Your task to perform on an android device: Open the Play Movies app and select the watchlist tab. Image 0: 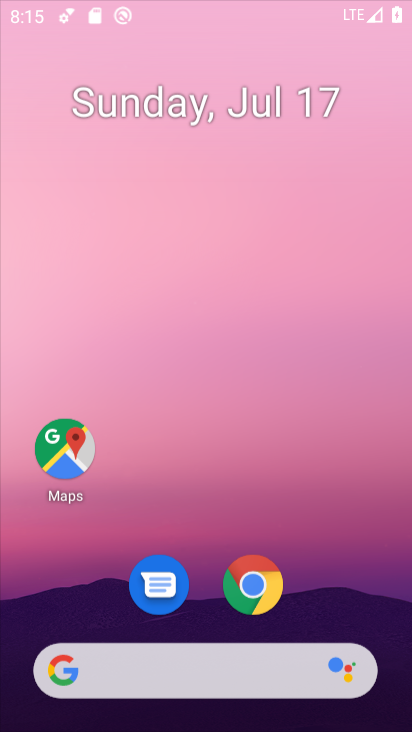
Step 0: click (250, 590)
Your task to perform on an android device: Open the Play Movies app and select the watchlist tab. Image 1: 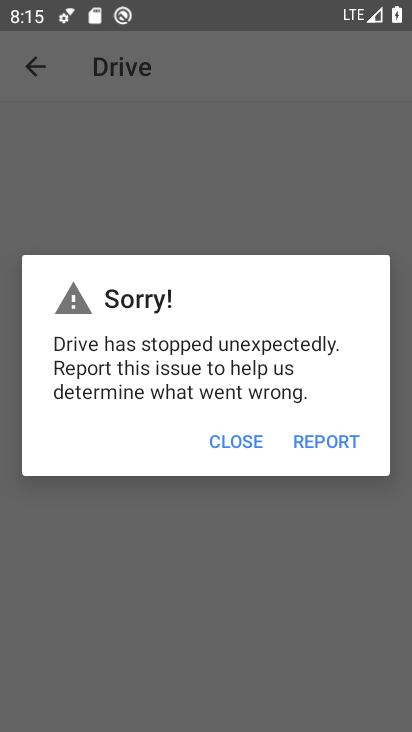
Step 1: press home button
Your task to perform on an android device: Open the Play Movies app and select the watchlist tab. Image 2: 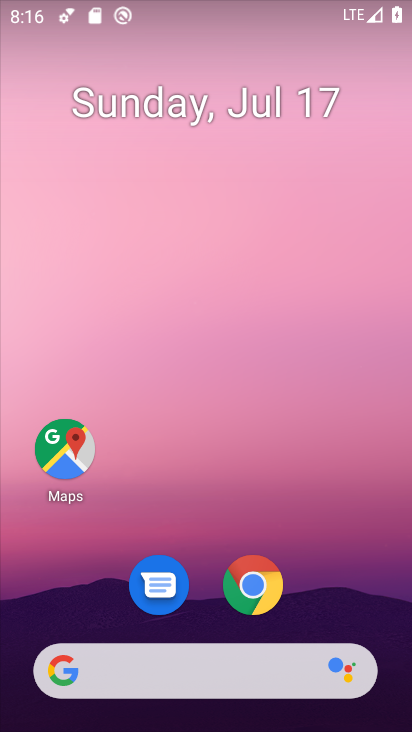
Step 2: drag from (328, 605) to (308, 31)
Your task to perform on an android device: Open the Play Movies app and select the watchlist tab. Image 3: 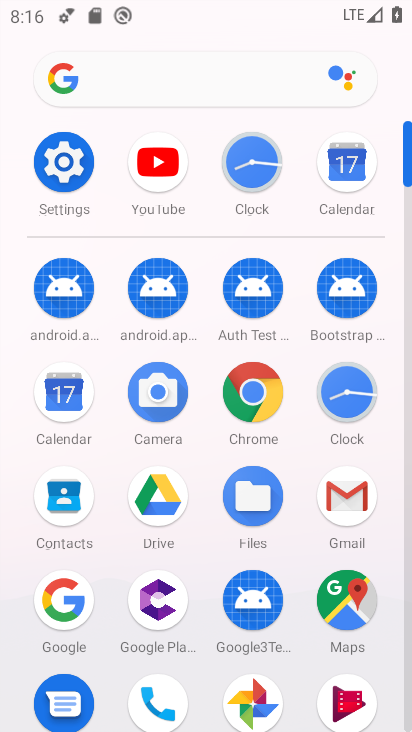
Step 3: click (349, 690)
Your task to perform on an android device: Open the Play Movies app and select the watchlist tab. Image 4: 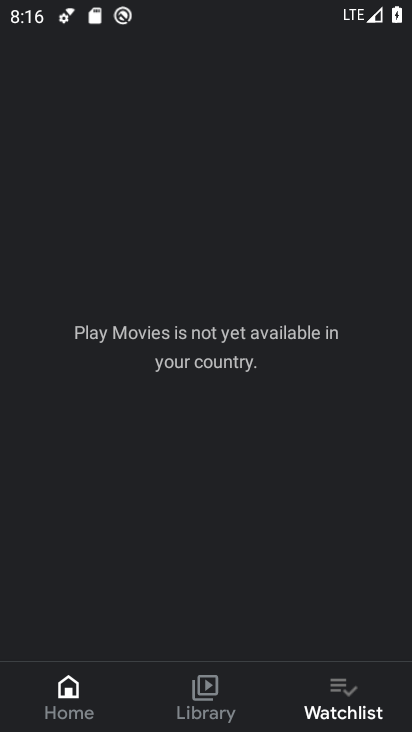
Step 4: click (330, 690)
Your task to perform on an android device: Open the Play Movies app and select the watchlist tab. Image 5: 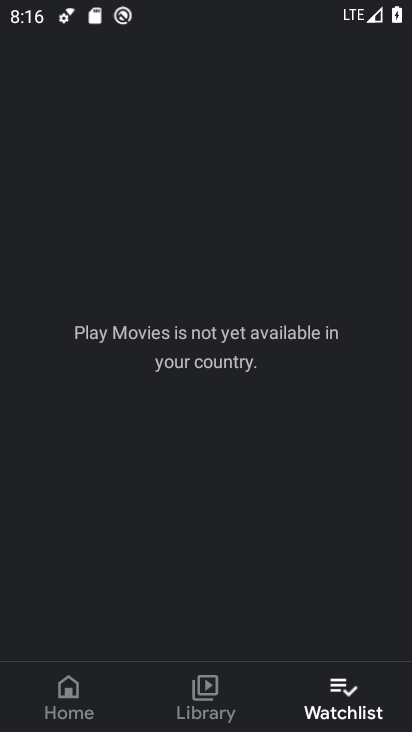
Step 5: task complete